Your task to perform on an android device: Search for sushi restaurants on Maps Image 0: 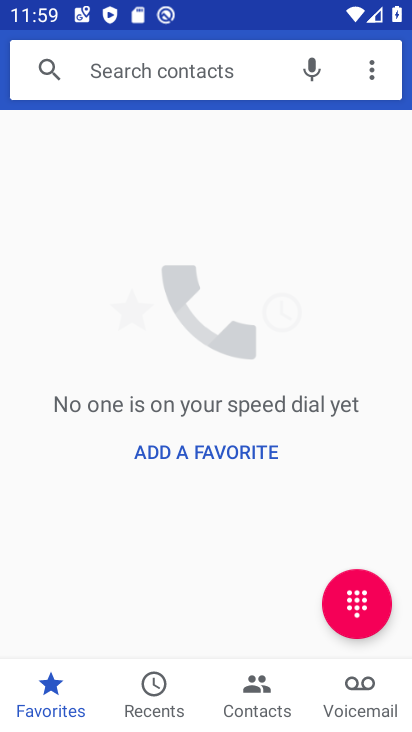
Step 0: press home button
Your task to perform on an android device: Search for sushi restaurants on Maps Image 1: 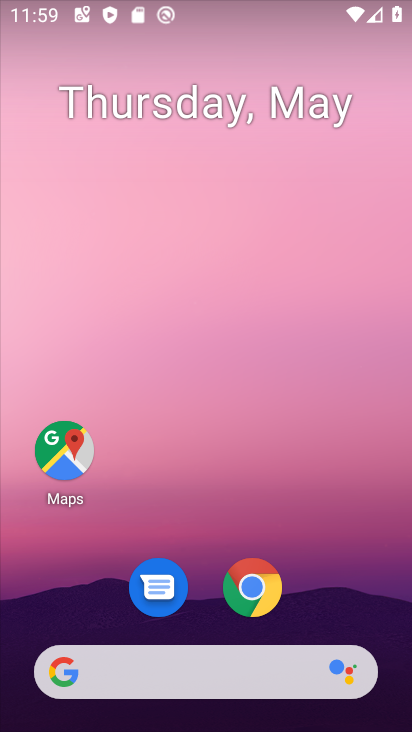
Step 1: click (72, 464)
Your task to perform on an android device: Search for sushi restaurants on Maps Image 2: 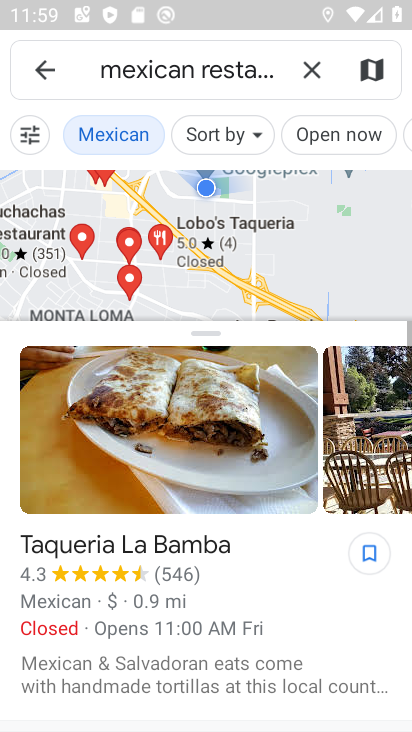
Step 2: click (313, 68)
Your task to perform on an android device: Search for sushi restaurants on Maps Image 3: 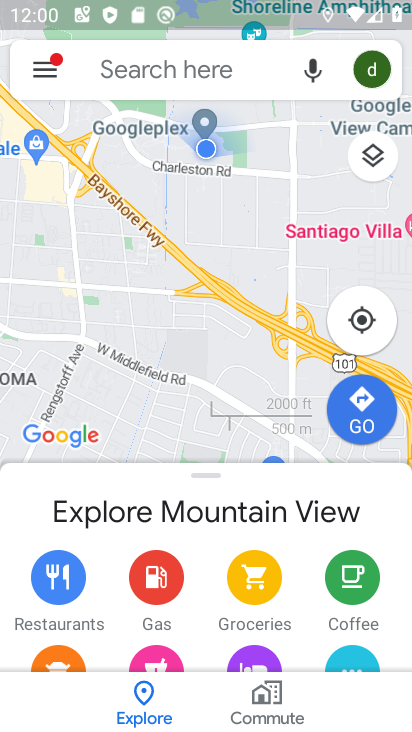
Step 3: click (195, 70)
Your task to perform on an android device: Search for sushi restaurants on Maps Image 4: 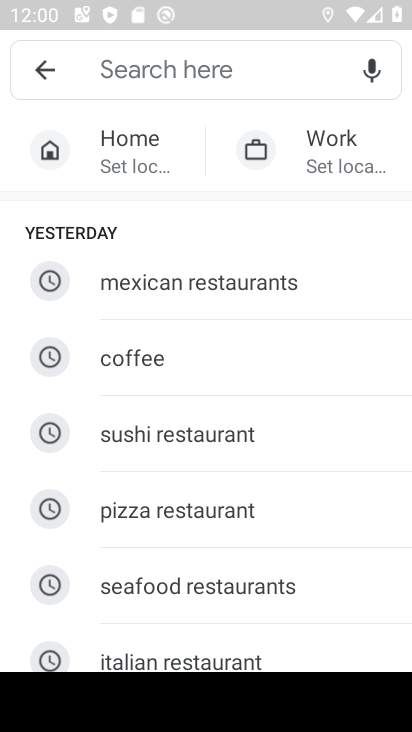
Step 4: type "sushi restaurants"
Your task to perform on an android device: Search for sushi restaurants on Maps Image 5: 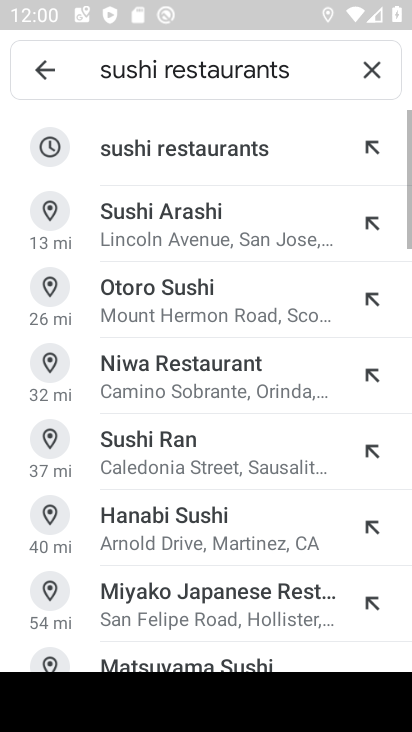
Step 5: click (191, 148)
Your task to perform on an android device: Search for sushi restaurants on Maps Image 6: 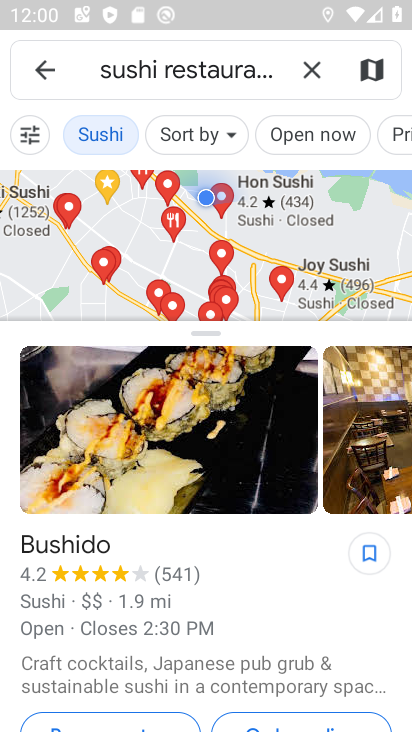
Step 6: task complete